Your task to perform on an android device: What's the weather? Image 0: 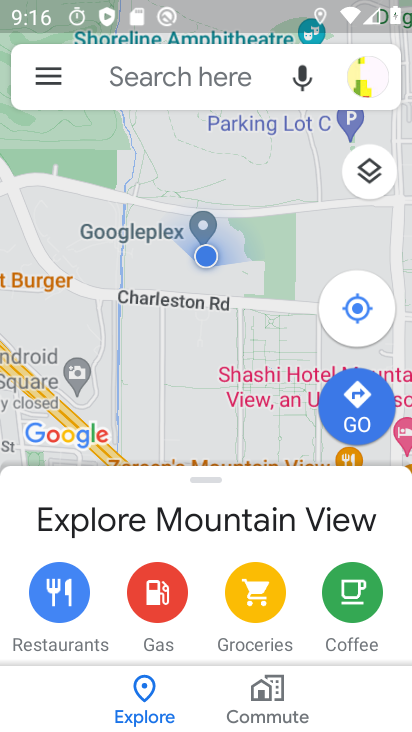
Step 0: press home button
Your task to perform on an android device: What's the weather? Image 1: 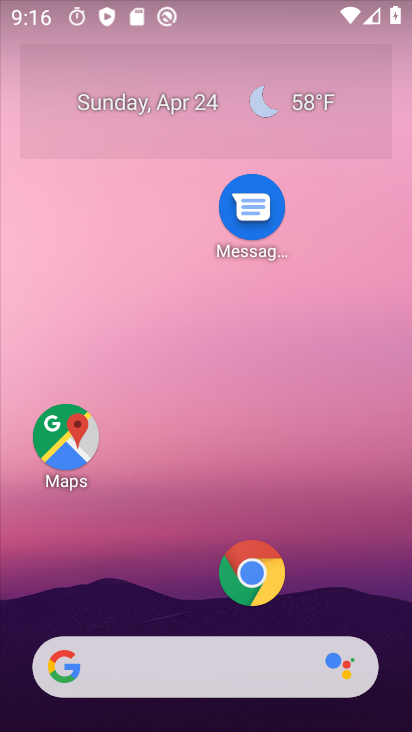
Step 1: click (151, 666)
Your task to perform on an android device: What's the weather? Image 2: 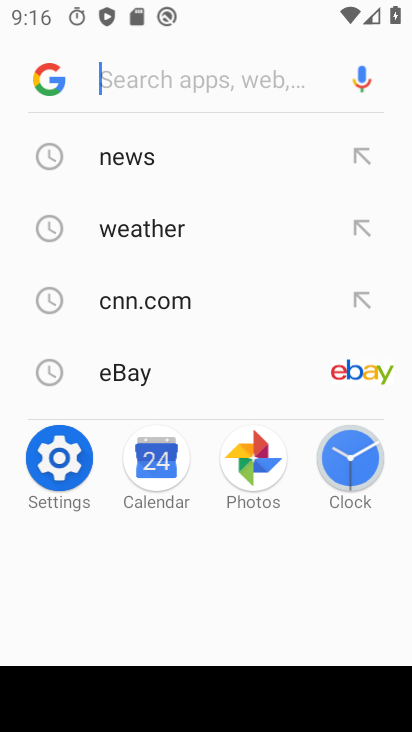
Step 2: click (147, 229)
Your task to perform on an android device: What's the weather? Image 3: 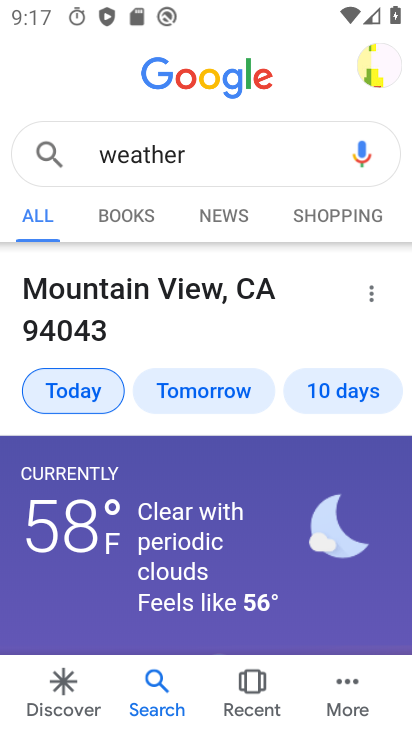
Step 3: task complete